Your task to perform on an android device: check google app version Image 0: 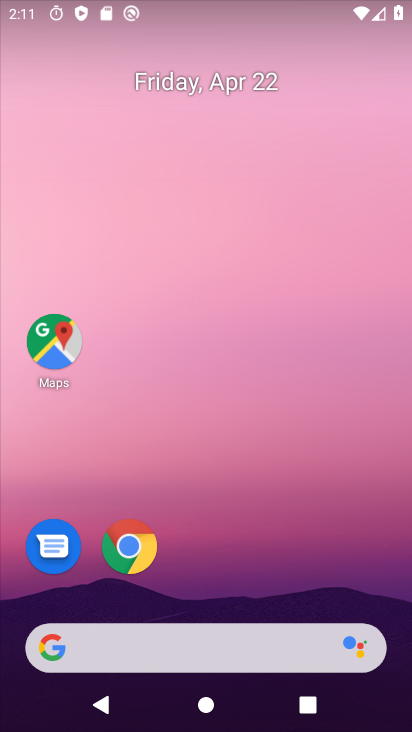
Step 0: click (260, 74)
Your task to perform on an android device: check google app version Image 1: 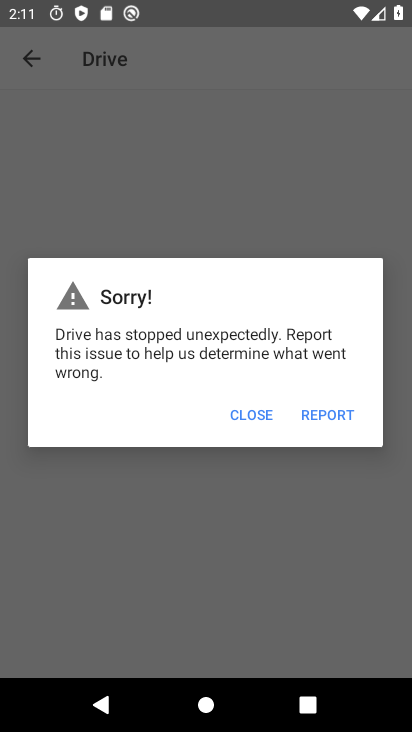
Step 1: press home button
Your task to perform on an android device: check google app version Image 2: 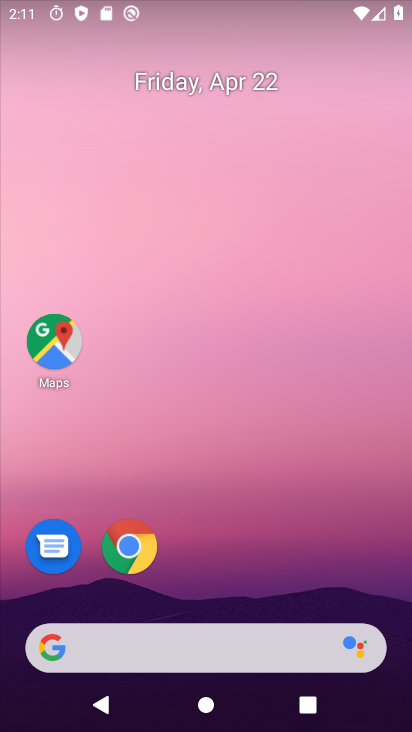
Step 2: drag from (149, 592) to (187, 150)
Your task to perform on an android device: check google app version Image 3: 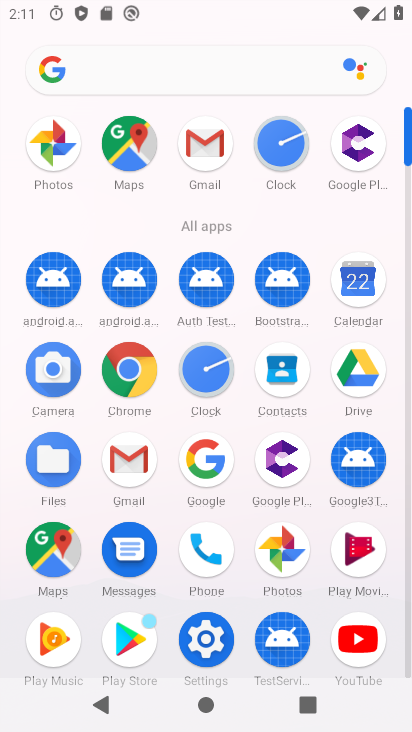
Step 3: click (203, 431)
Your task to perform on an android device: check google app version Image 4: 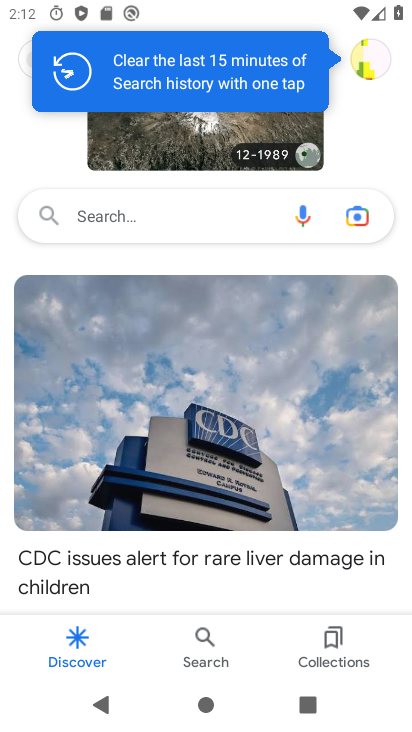
Step 4: click (374, 66)
Your task to perform on an android device: check google app version Image 5: 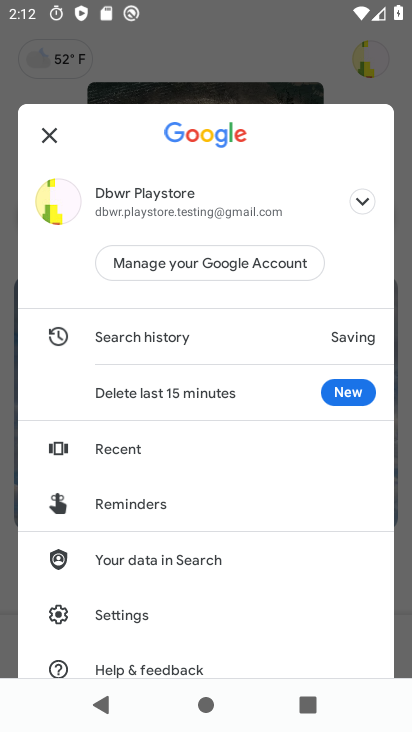
Step 5: click (136, 624)
Your task to perform on an android device: check google app version Image 6: 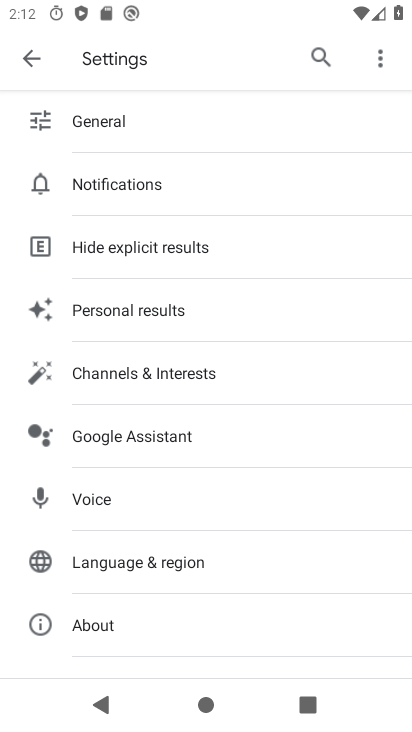
Step 6: click (130, 626)
Your task to perform on an android device: check google app version Image 7: 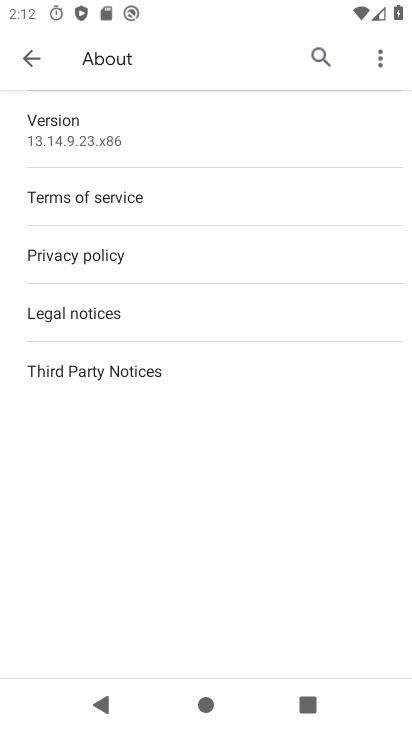
Step 7: click (151, 139)
Your task to perform on an android device: check google app version Image 8: 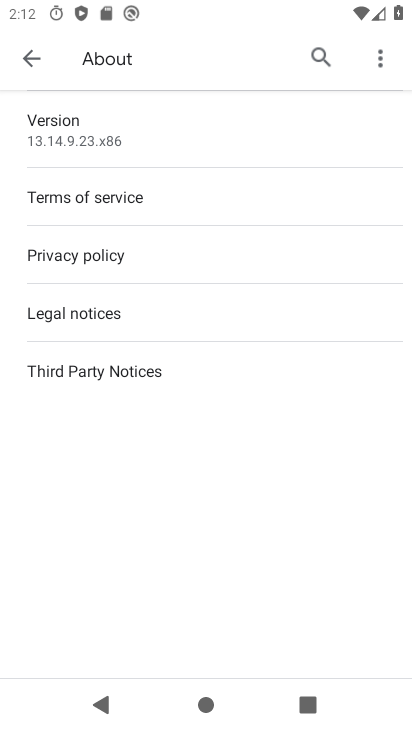
Step 8: task complete